Your task to perform on an android device: Open notification settings Image 0: 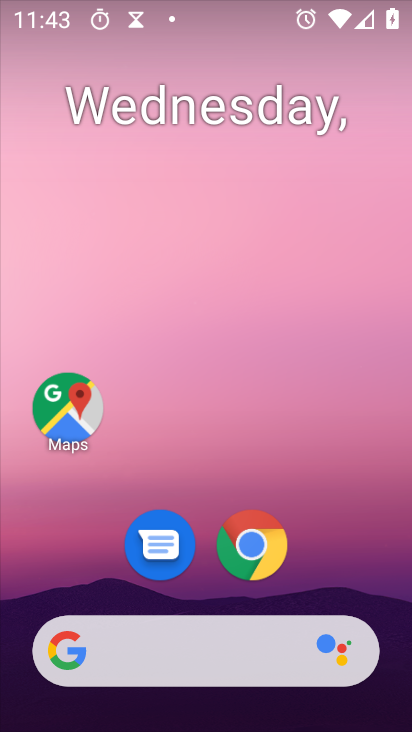
Step 0: press home button
Your task to perform on an android device: Open notification settings Image 1: 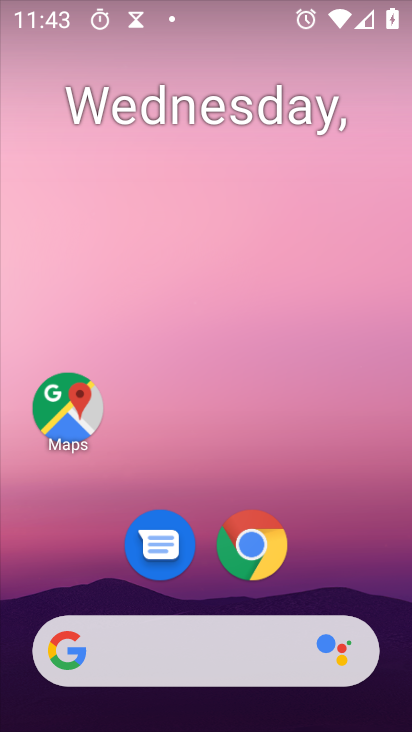
Step 1: drag from (189, 650) to (330, 84)
Your task to perform on an android device: Open notification settings Image 2: 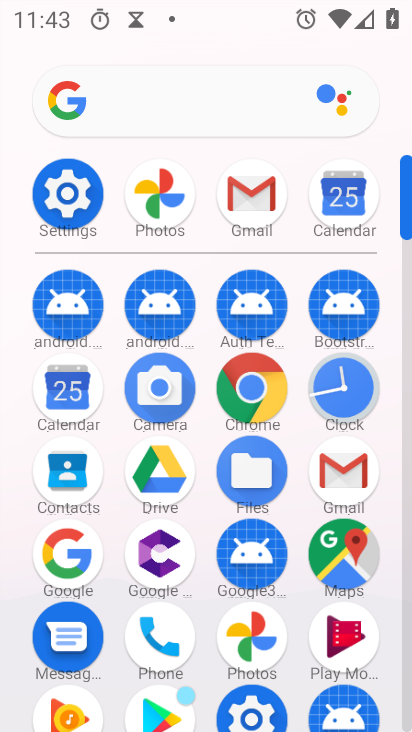
Step 2: click (78, 184)
Your task to perform on an android device: Open notification settings Image 3: 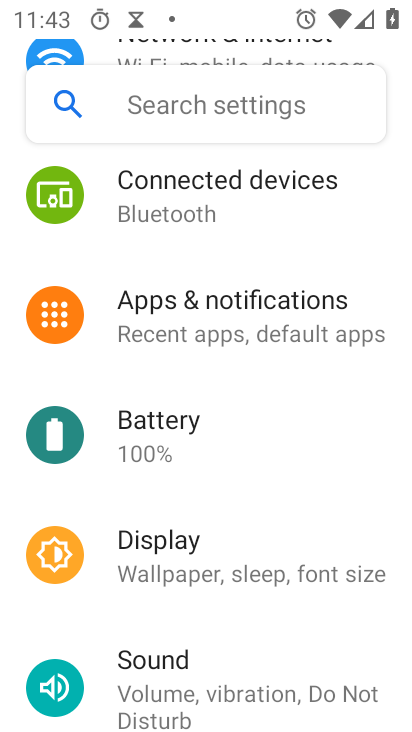
Step 3: click (290, 304)
Your task to perform on an android device: Open notification settings Image 4: 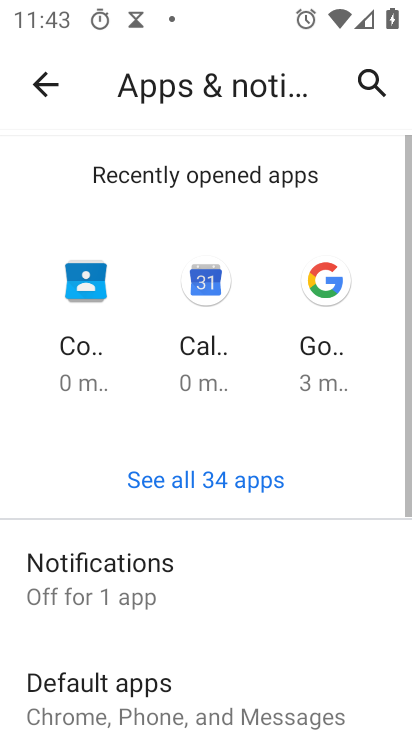
Step 4: click (151, 555)
Your task to perform on an android device: Open notification settings Image 5: 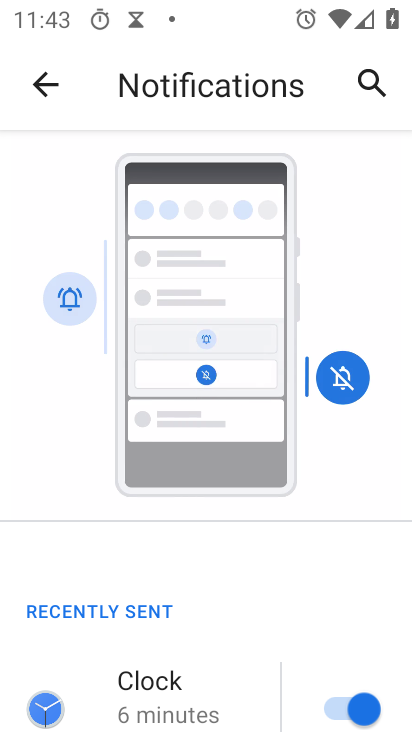
Step 5: task complete